Your task to perform on an android device: Open the map Image 0: 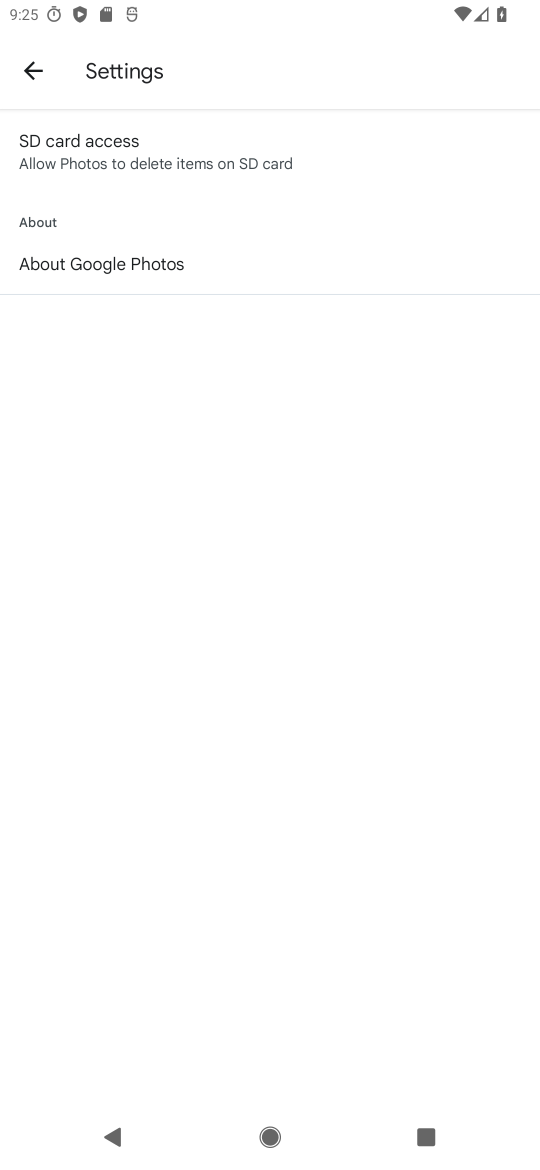
Step 0: press home button
Your task to perform on an android device: Open the map Image 1: 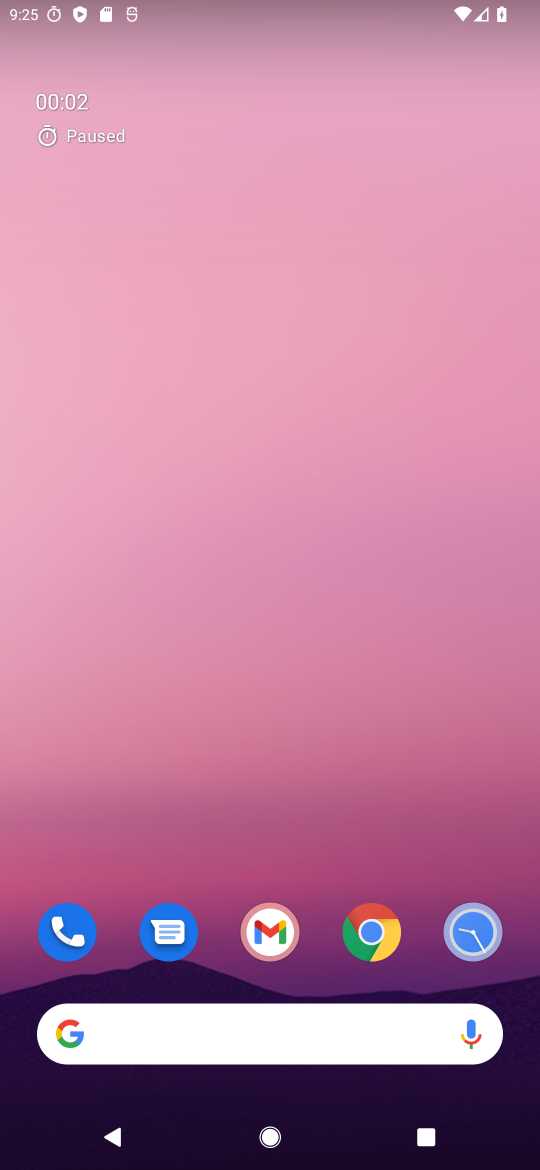
Step 1: drag from (292, 991) to (449, 138)
Your task to perform on an android device: Open the map Image 2: 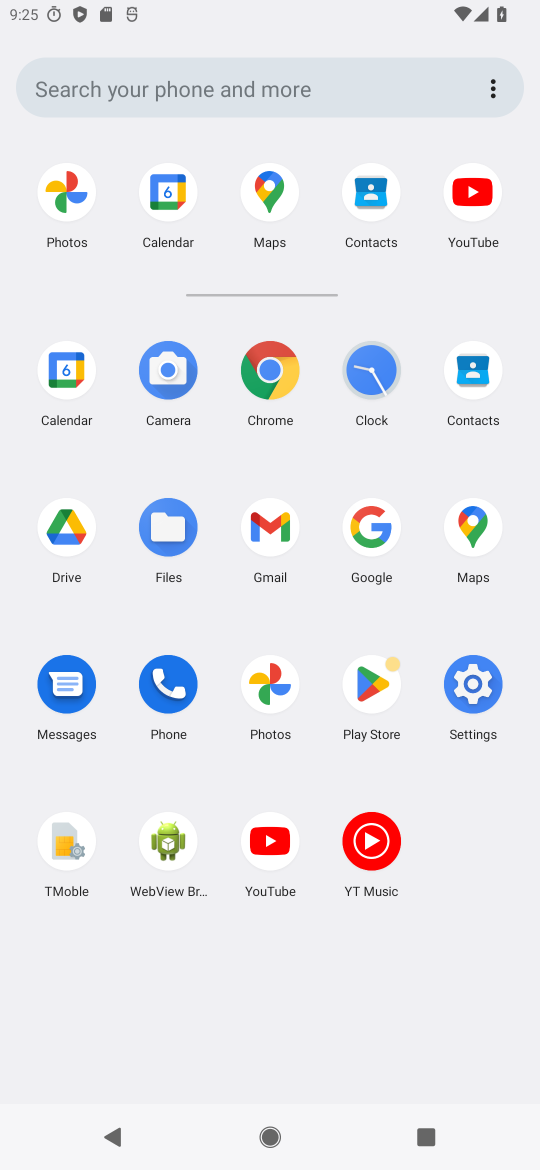
Step 2: click (466, 528)
Your task to perform on an android device: Open the map Image 3: 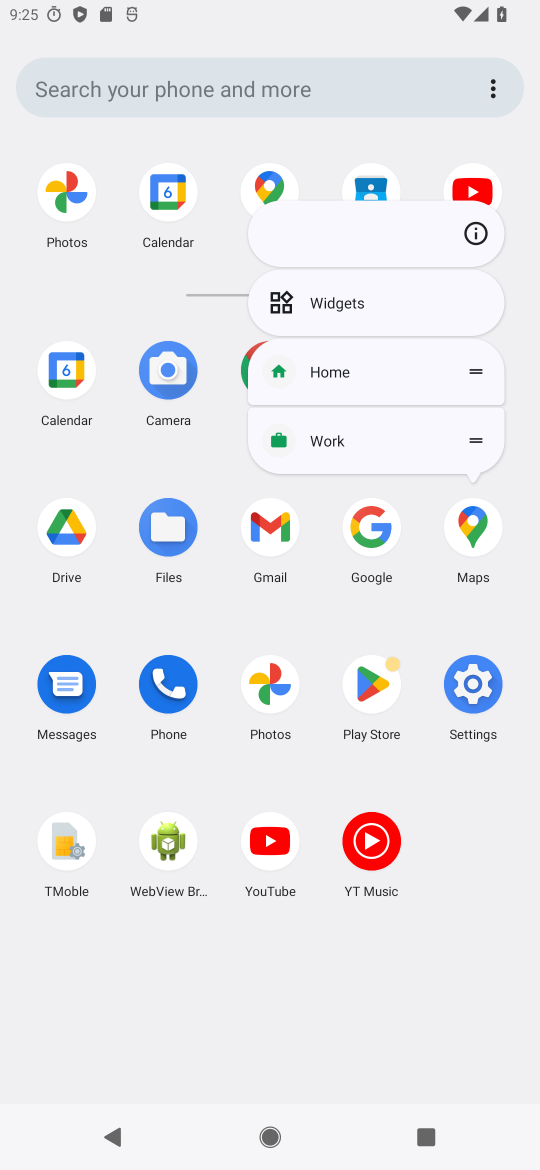
Step 3: click (475, 524)
Your task to perform on an android device: Open the map Image 4: 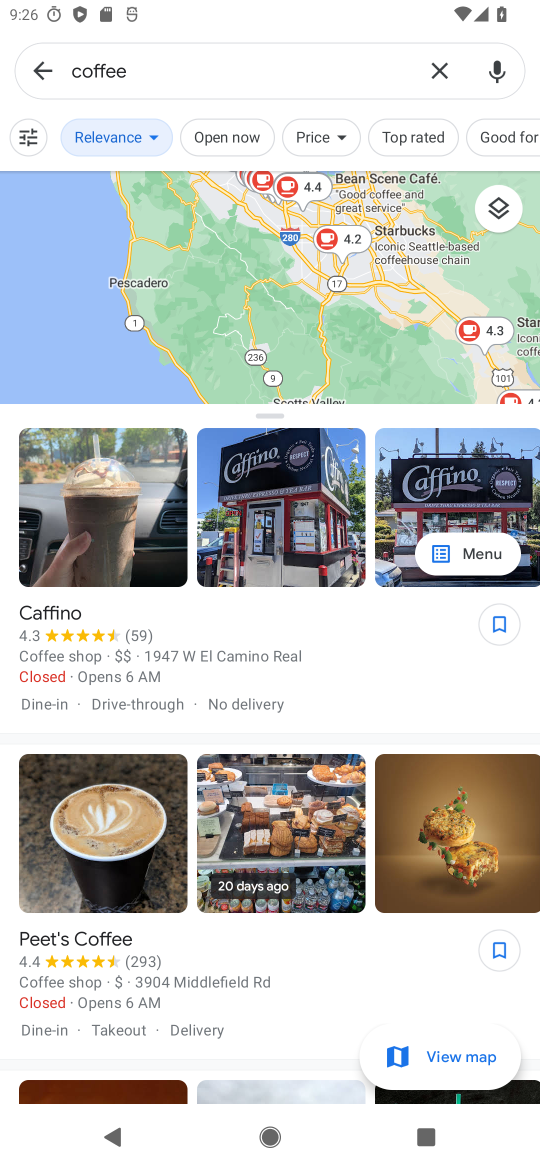
Step 4: task complete